Your task to perform on an android device: Open maps Image 0: 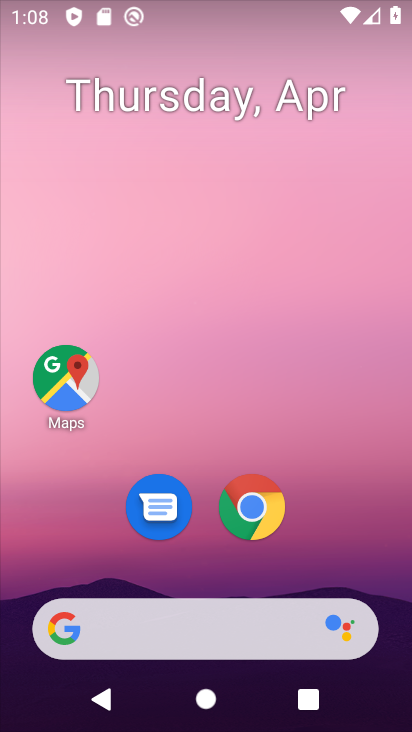
Step 0: click (81, 384)
Your task to perform on an android device: Open maps Image 1: 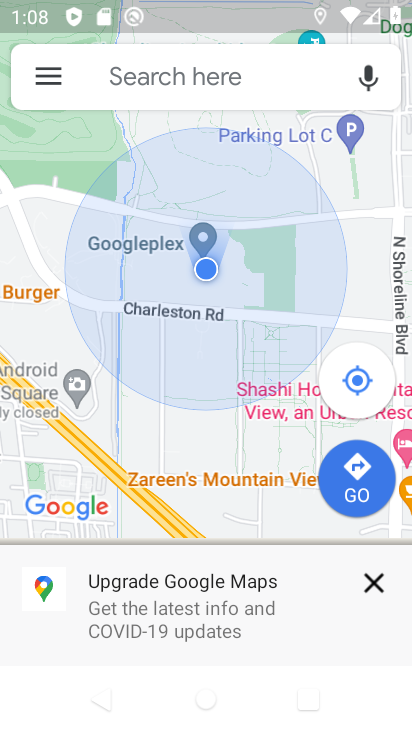
Step 1: task complete